Your task to perform on an android device: Search for vegetarian restaurants on Maps Image 0: 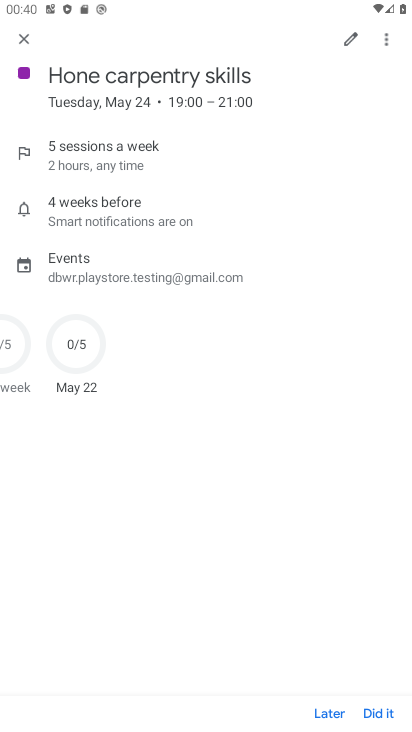
Step 0: press home button
Your task to perform on an android device: Search for vegetarian restaurants on Maps Image 1: 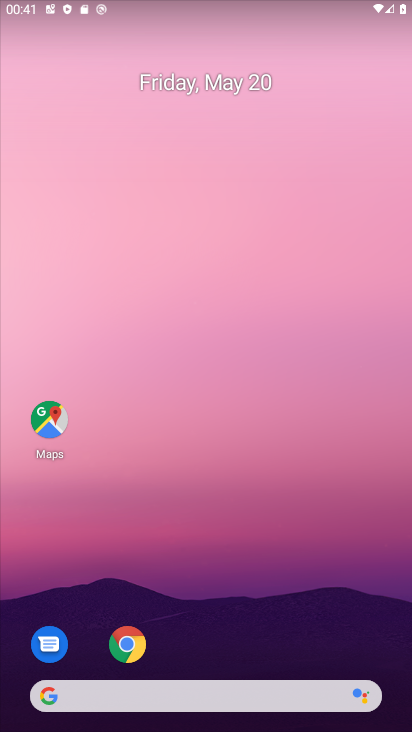
Step 1: click (43, 422)
Your task to perform on an android device: Search for vegetarian restaurants on Maps Image 2: 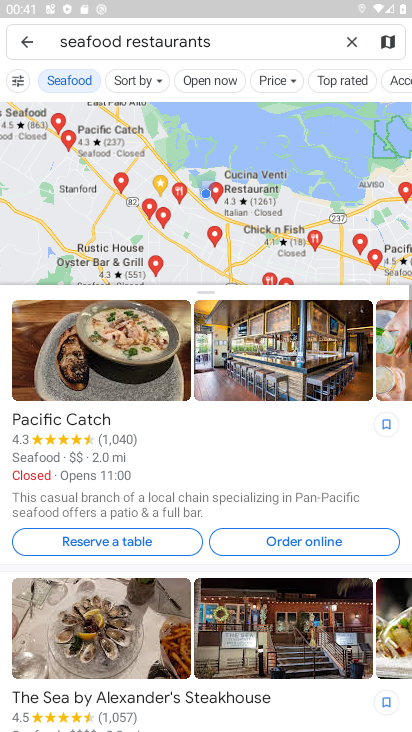
Step 2: click (352, 45)
Your task to perform on an android device: Search for vegetarian restaurants on Maps Image 3: 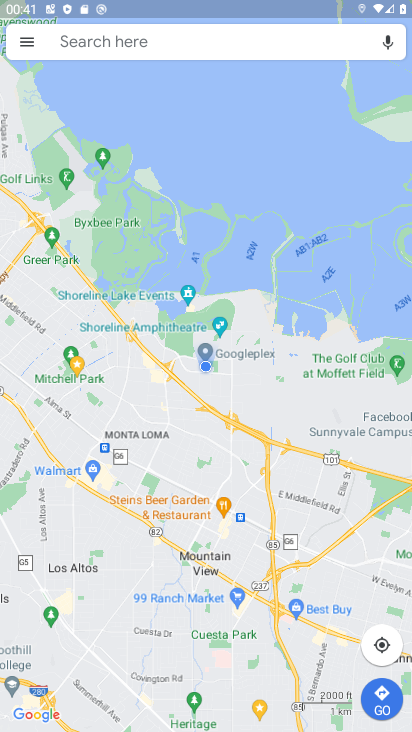
Step 3: click (178, 43)
Your task to perform on an android device: Search for vegetarian restaurants on Maps Image 4: 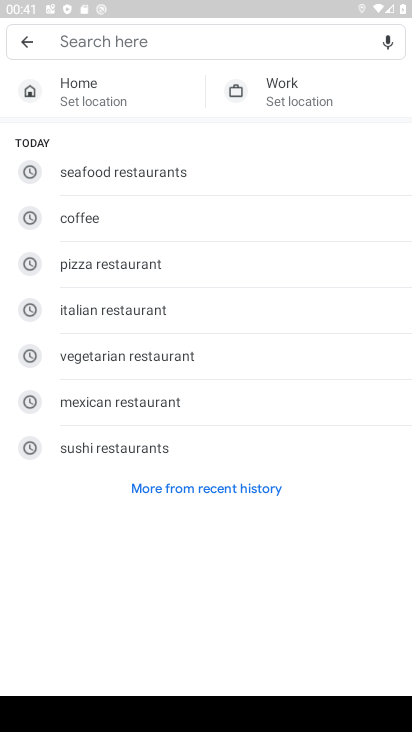
Step 4: type "vegetarian restaurant "
Your task to perform on an android device: Search for vegetarian restaurants on Maps Image 5: 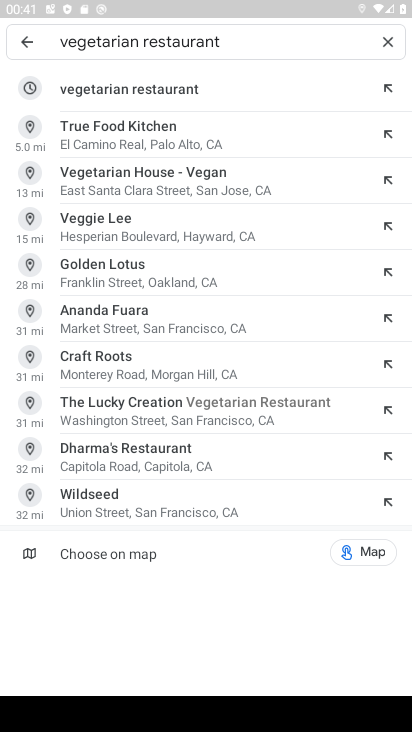
Step 5: click (183, 98)
Your task to perform on an android device: Search for vegetarian restaurants on Maps Image 6: 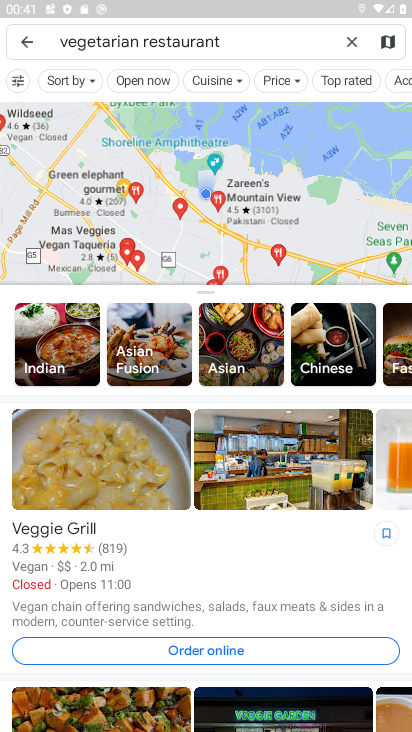
Step 6: task complete